Your task to perform on an android device: open app "Expedia: Hotels, Flights & Car" (install if not already installed) and go to login screen Image 0: 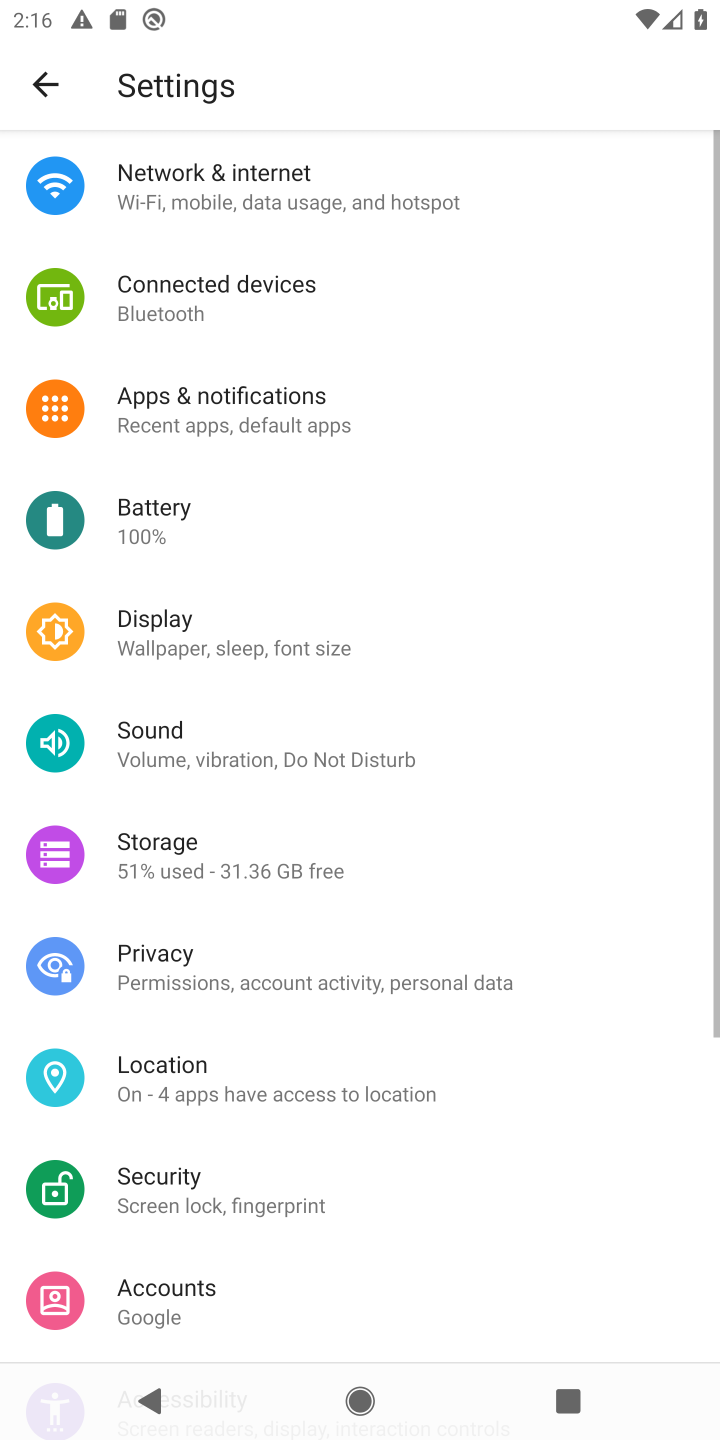
Step 0: press home button
Your task to perform on an android device: open app "Expedia: Hotels, Flights & Car" (install if not already installed) and go to login screen Image 1: 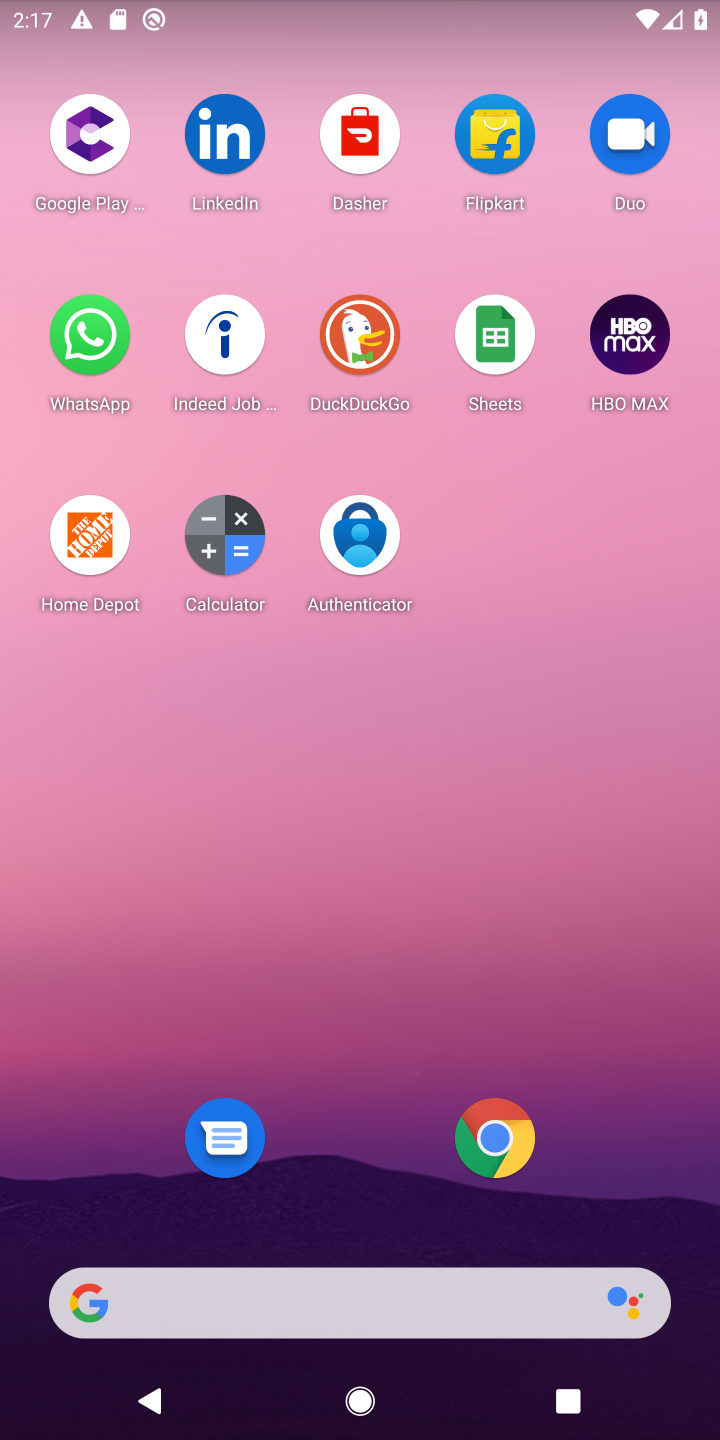
Step 1: drag from (356, 1090) to (357, 201)
Your task to perform on an android device: open app "Expedia: Hotels, Flights & Car" (install if not already installed) and go to login screen Image 2: 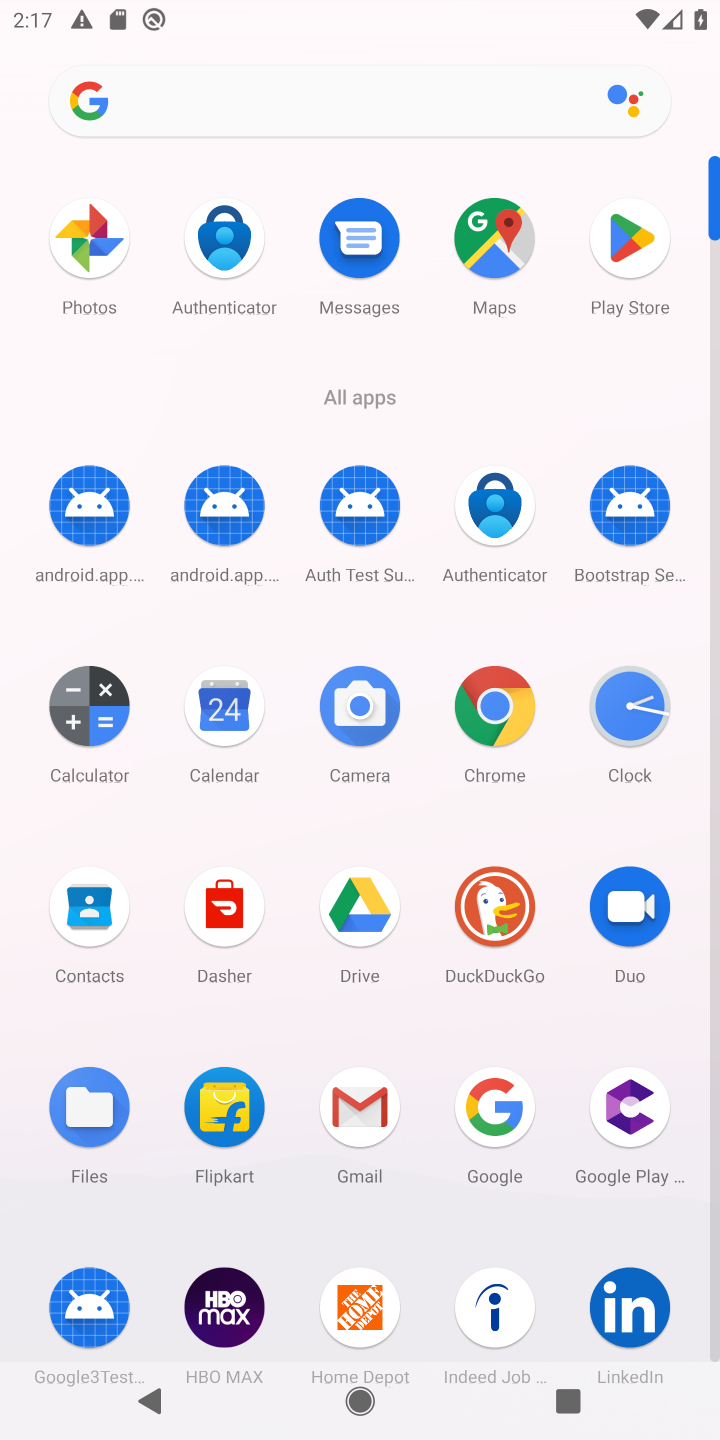
Step 2: click (632, 231)
Your task to perform on an android device: open app "Expedia: Hotels, Flights & Car" (install if not already installed) and go to login screen Image 3: 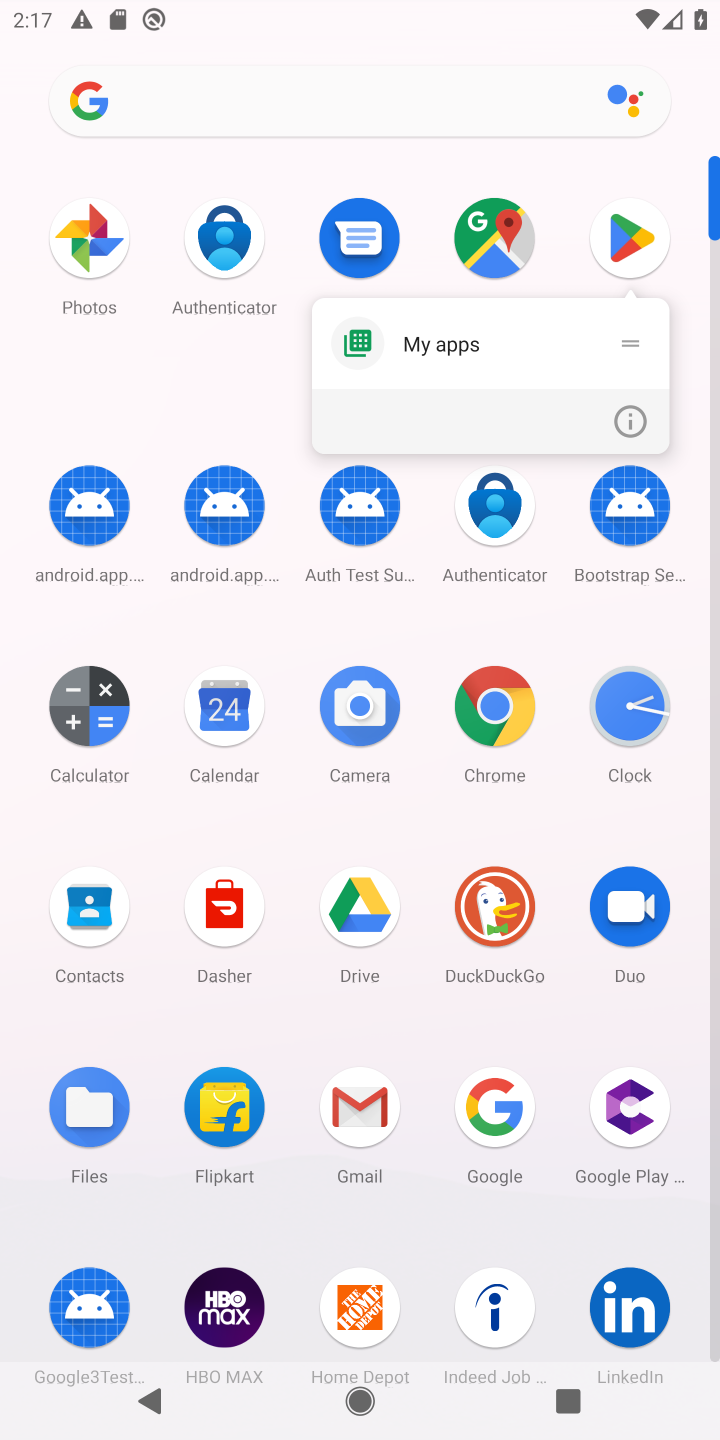
Step 3: click (629, 231)
Your task to perform on an android device: open app "Expedia: Hotels, Flights & Car" (install if not already installed) and go to login screen Image 4: 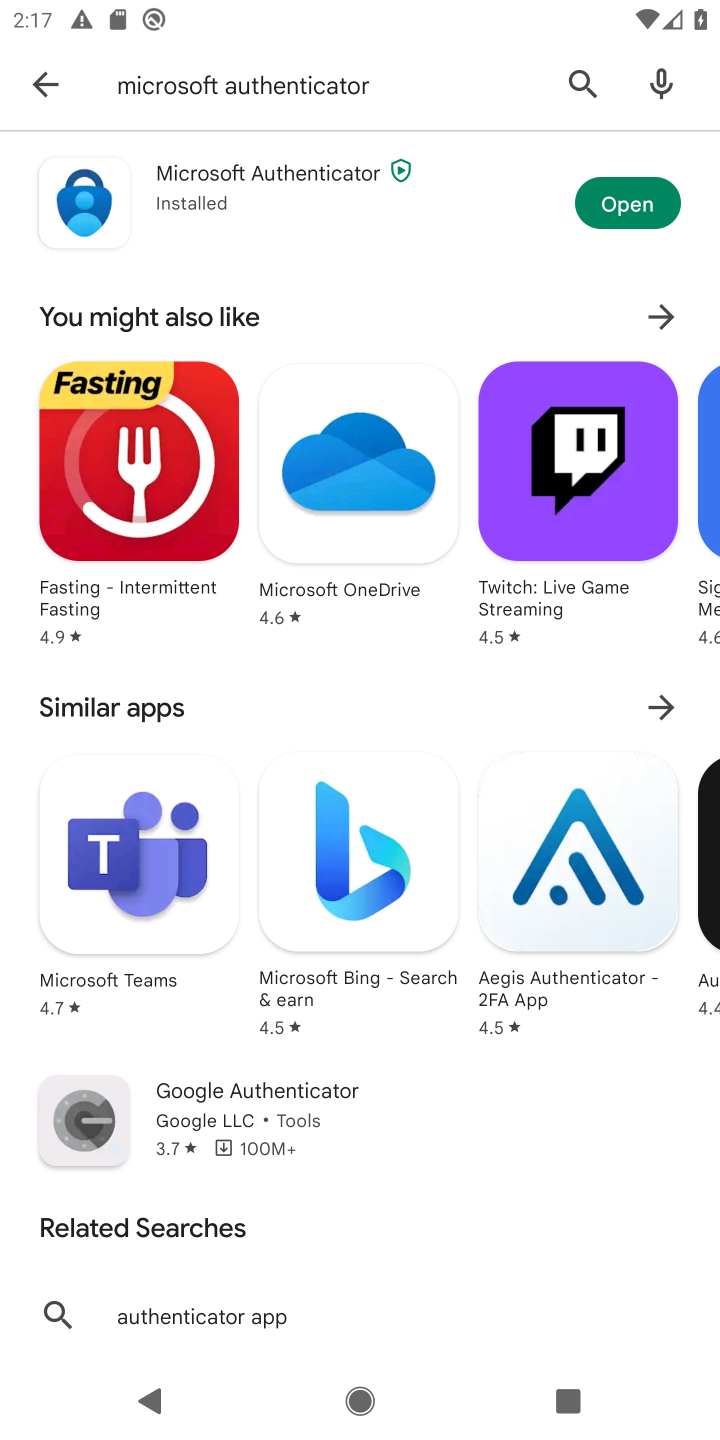
Step 4: click (582, 77)
Your task to perform on an android device: open app "Expedia: Hotels, Flights & Car" (install if not already installed) and go to login screen Image 5: 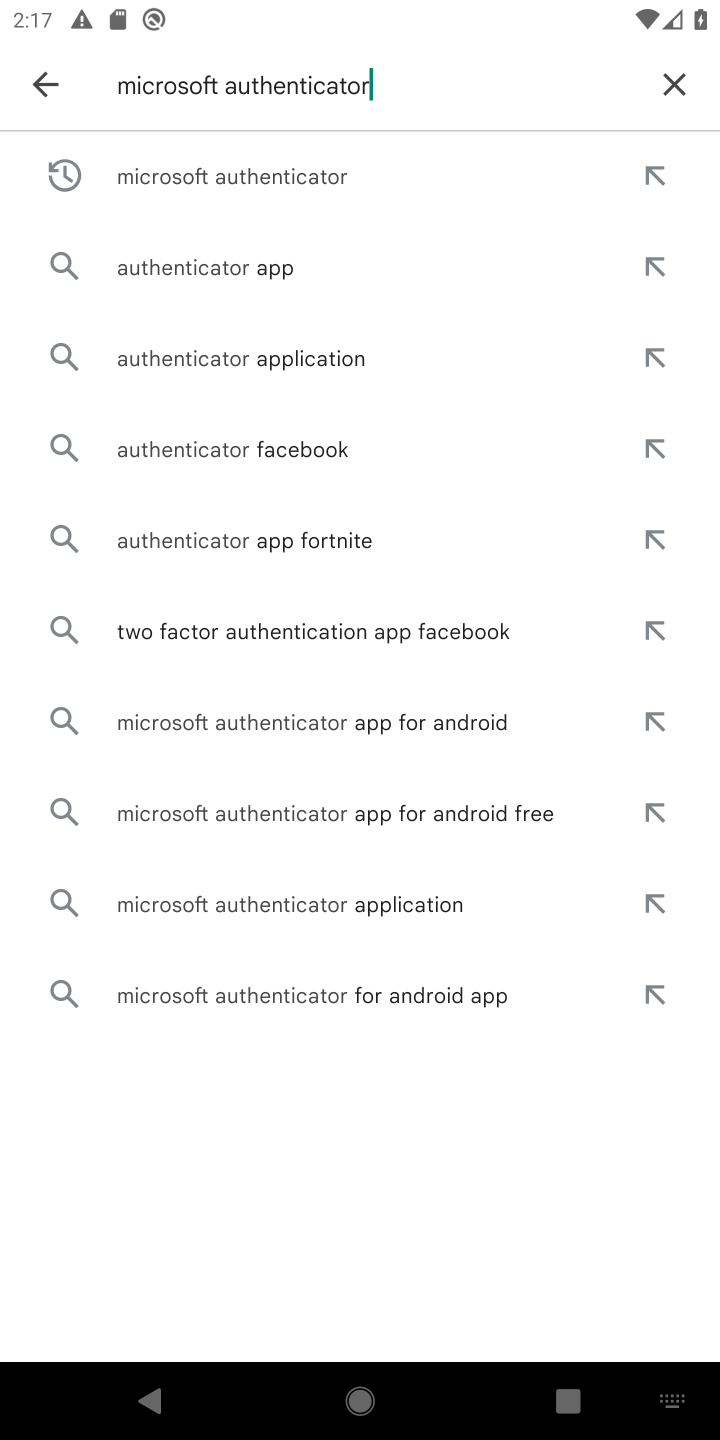
Step 5: click (669, 77)
Your task to perform on an android device: open app "Expedia: Hotels, Flights & Car" (install if not already installed) and go to login screen Image 6: 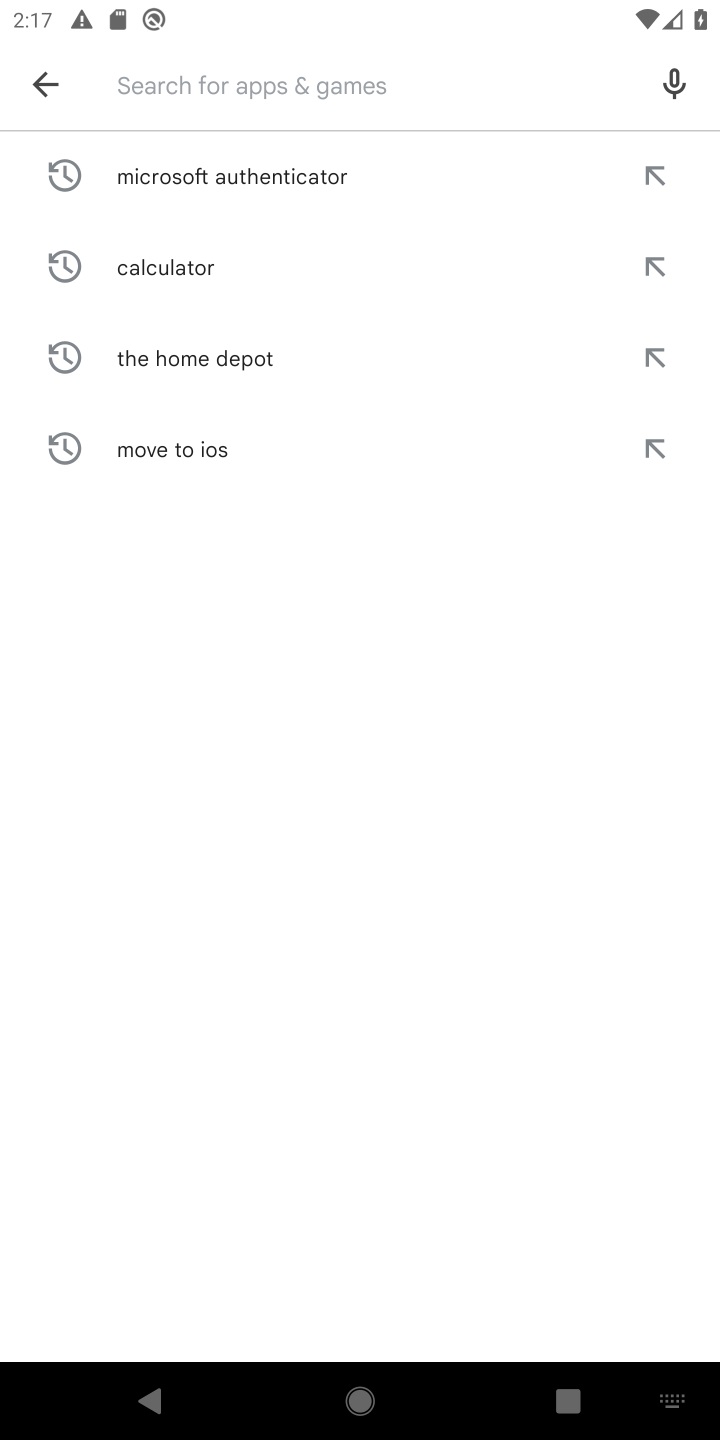
Step 6: type "Expedia: Hotels, Flights & Car"
Your task to perform on an android device: open app "Expedia: Hotels, Flights & Car" (install if not already installed) and go to login screen Image 7: 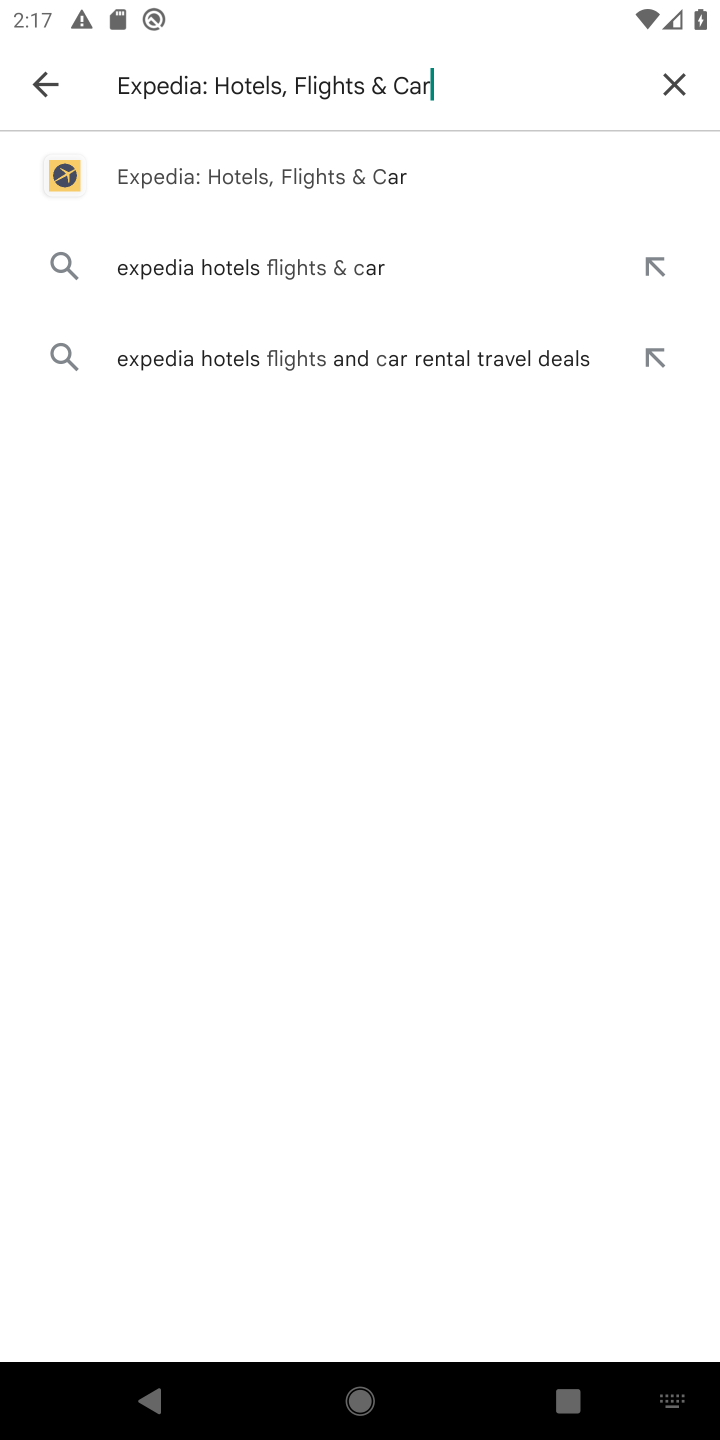
Step 7: type ""
Your task to perform on an android device: open app "Expedia: Hotels, Flights & Car" (install if not already installed) and go to login screen Image 8: 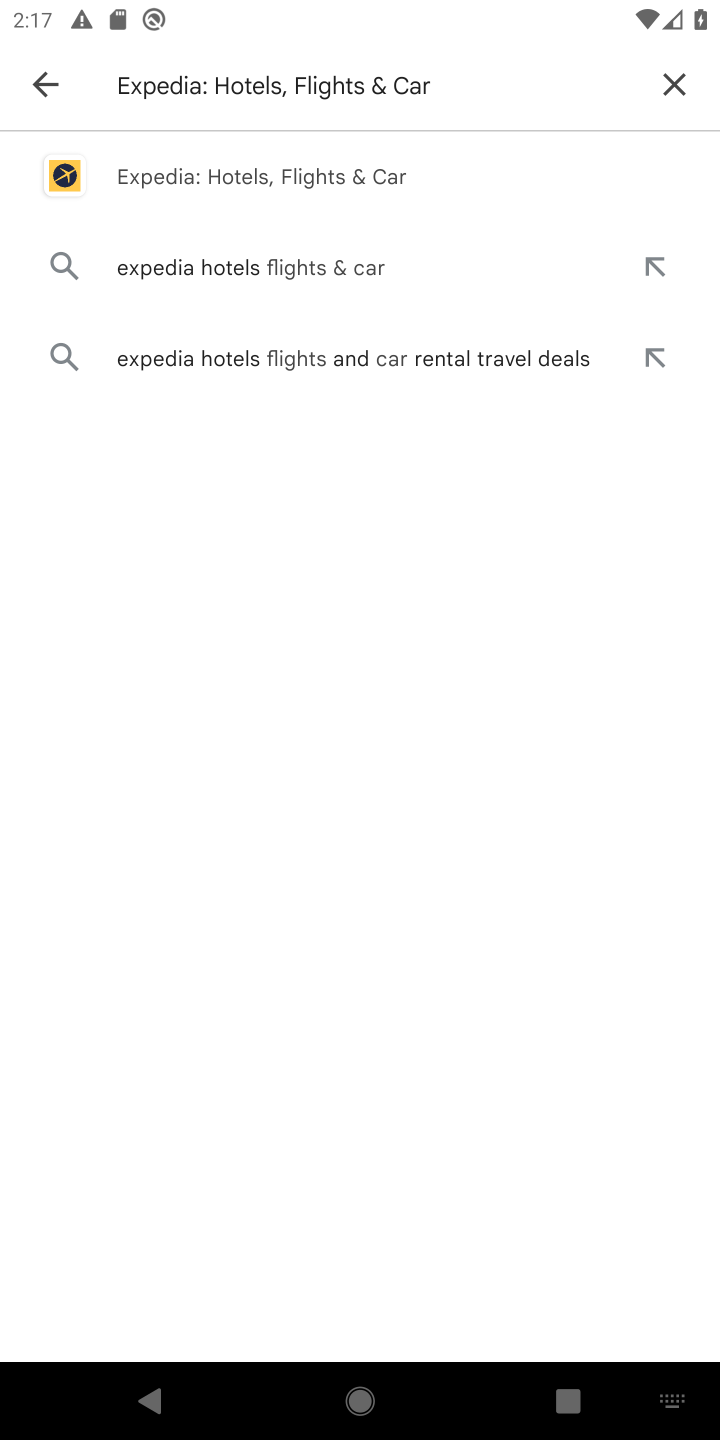
Step 8: click (313, 182)
Your task to perform on an android device: open app "Expedia: Hotels, Flights & Car" (install if not already installed) and go to login screen Image 9: 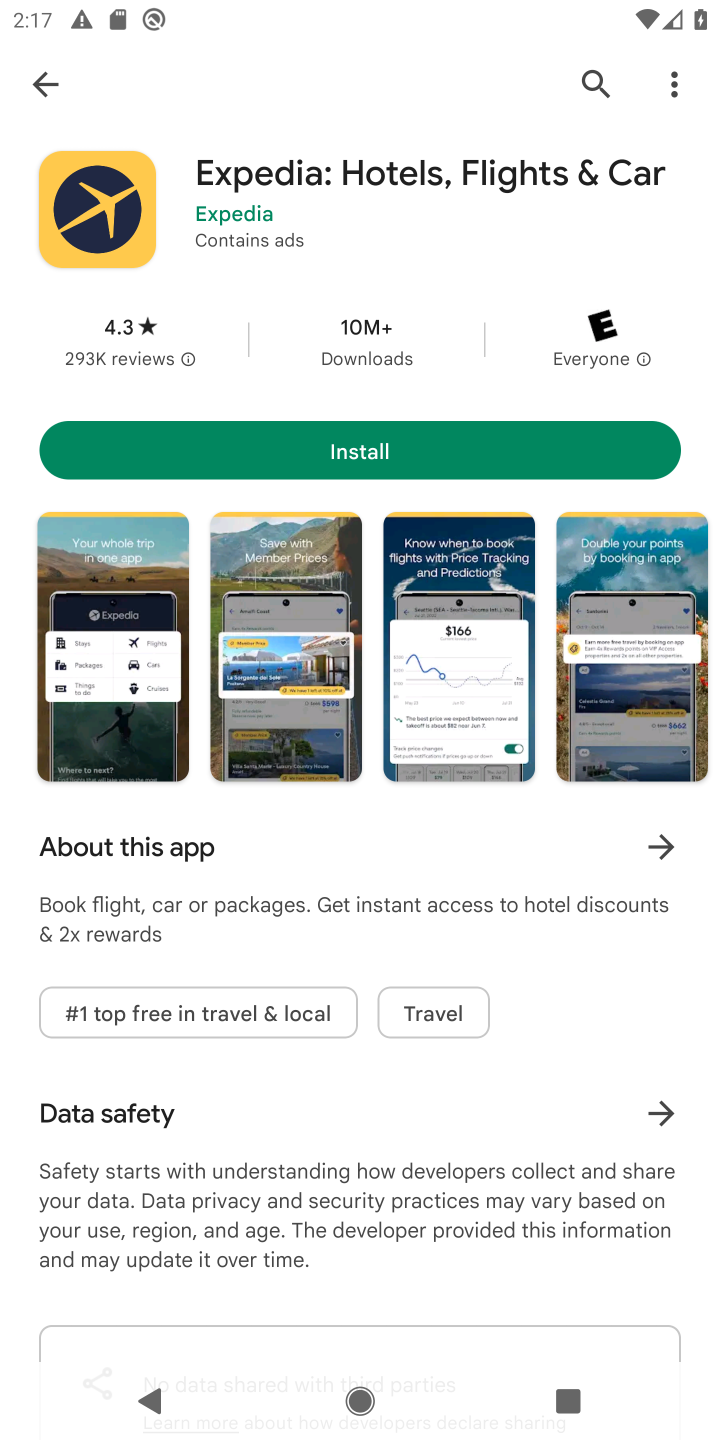
Step 9: click (390, 450)
Your task to perform on an android device: open app "Expedia: Hotels, Flights & Car" (install if not already installed) and go to login screen Image 10: 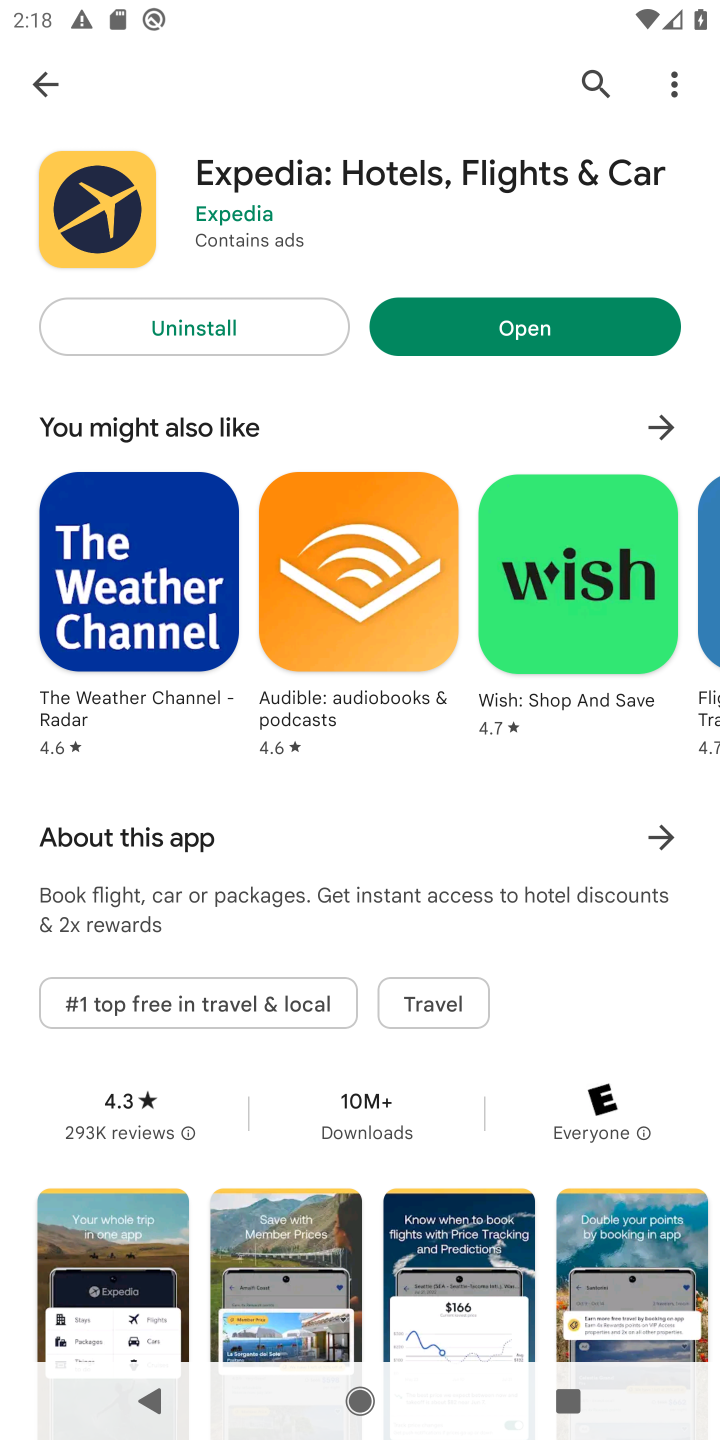
Step 10: click (559, 327)
Your task to perform on an android device: open app "Expedia: Hotels, Flights & Car" (install if not already installed) and go to login screen Image 11: 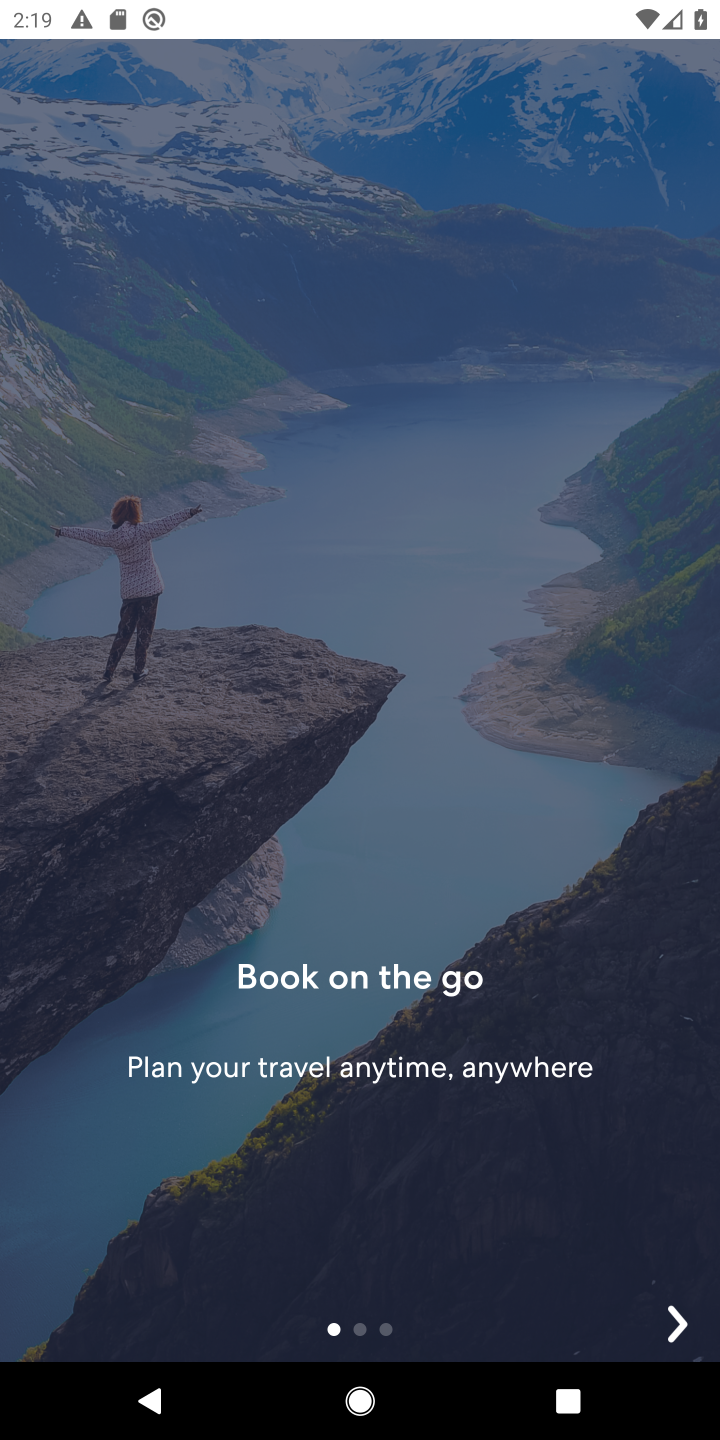
Step 11: click (670, 1326)
Your task to perform on an android device: open app "Expedia: Hotels, Flights & Car" (install if not already installed) and go to login screen Image 12: 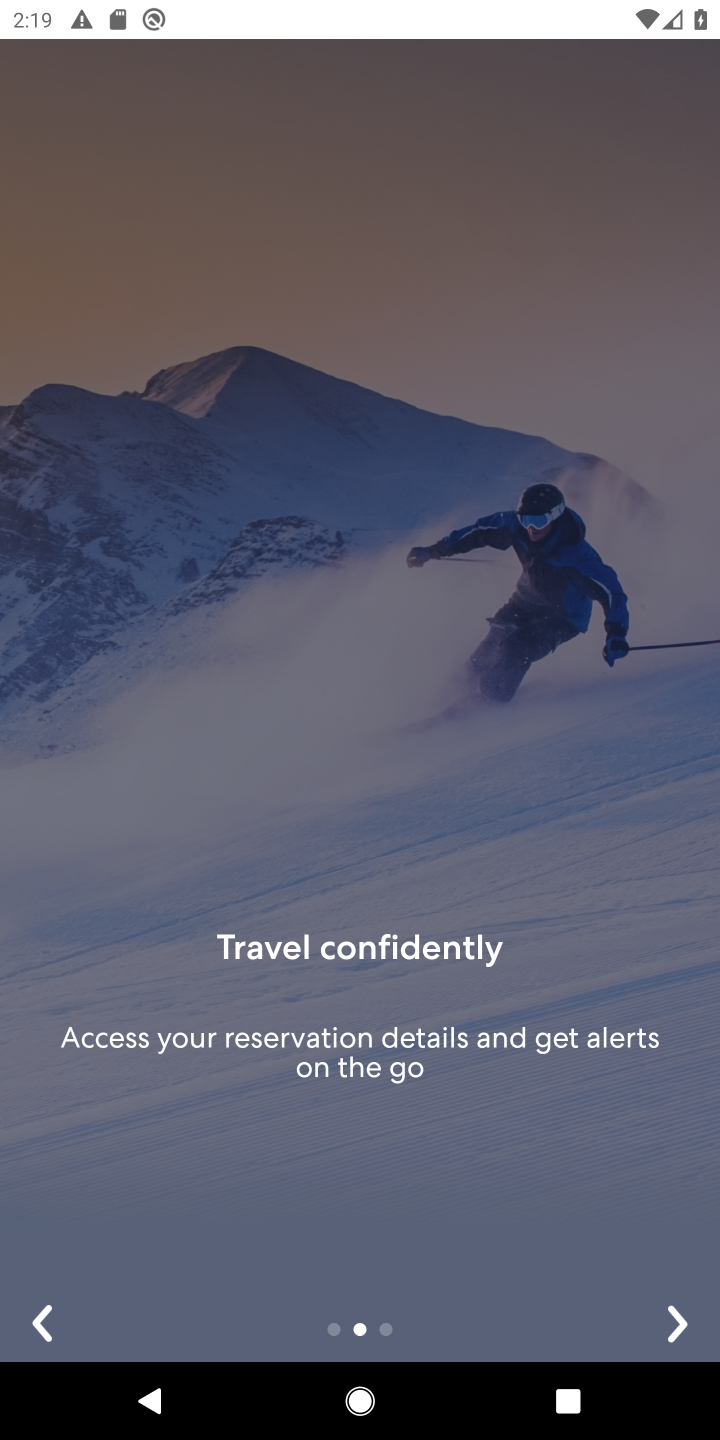
Step 12: click (675, 1318)
Your task to perform on an android device: open app "Expedia: Hotels, Flights & Car" (install if not already installed) and go to login screen Image 13: 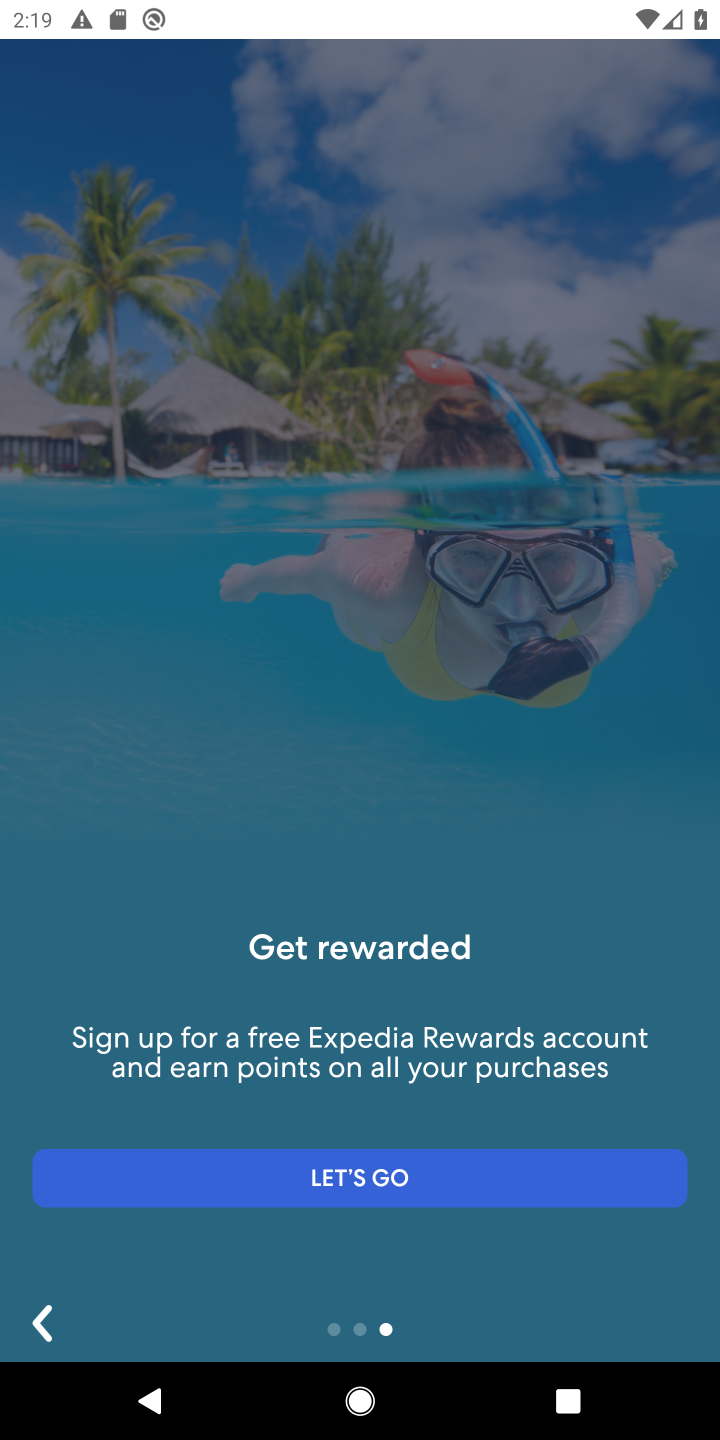
Step 13: click (371, 1180)
Your task to perform on an android device: open app "Expedia: Hotels, Flights & Car" (install if not already installed) and go to login screen Image 14: 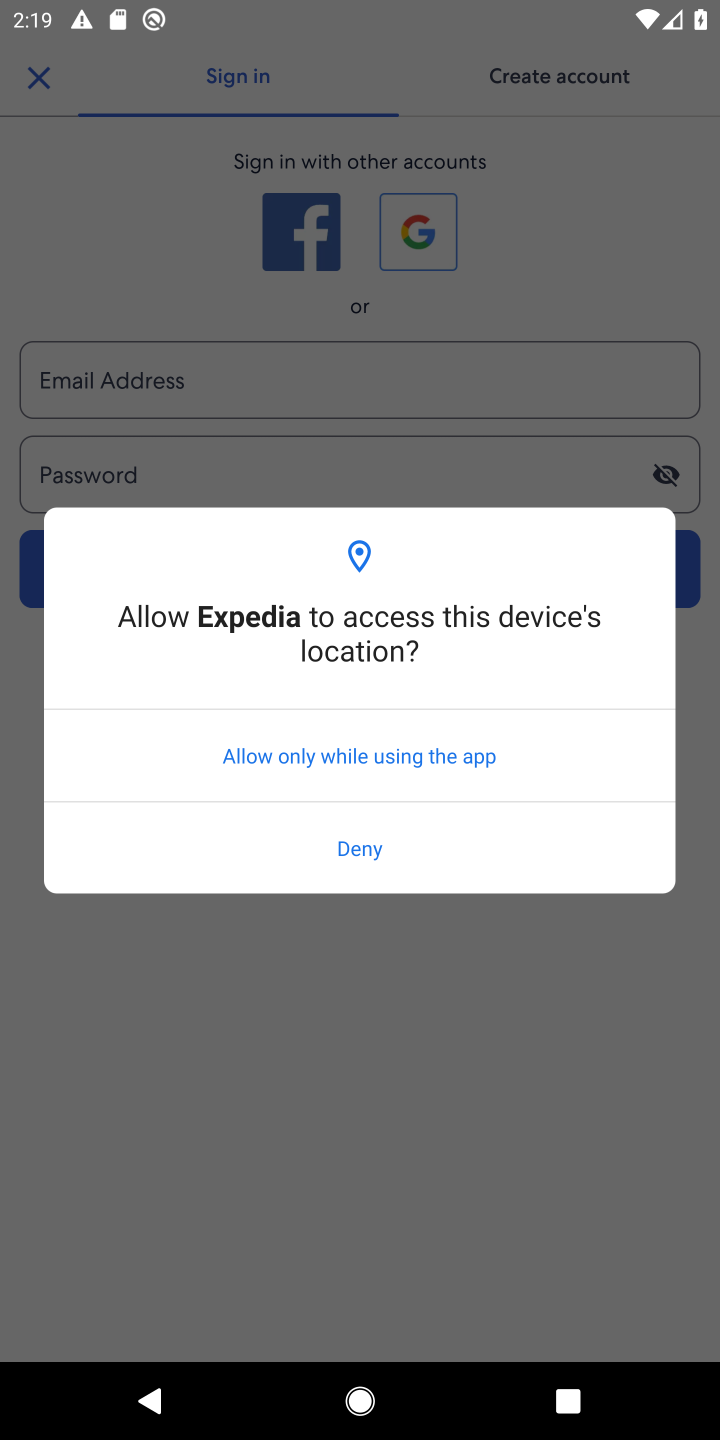
Step 14: click (364, 842)
Your task to perform on an android device: open app "Expedia: Hotels, Flights & Car" (install if not already installed) and go to login screen Image 15: 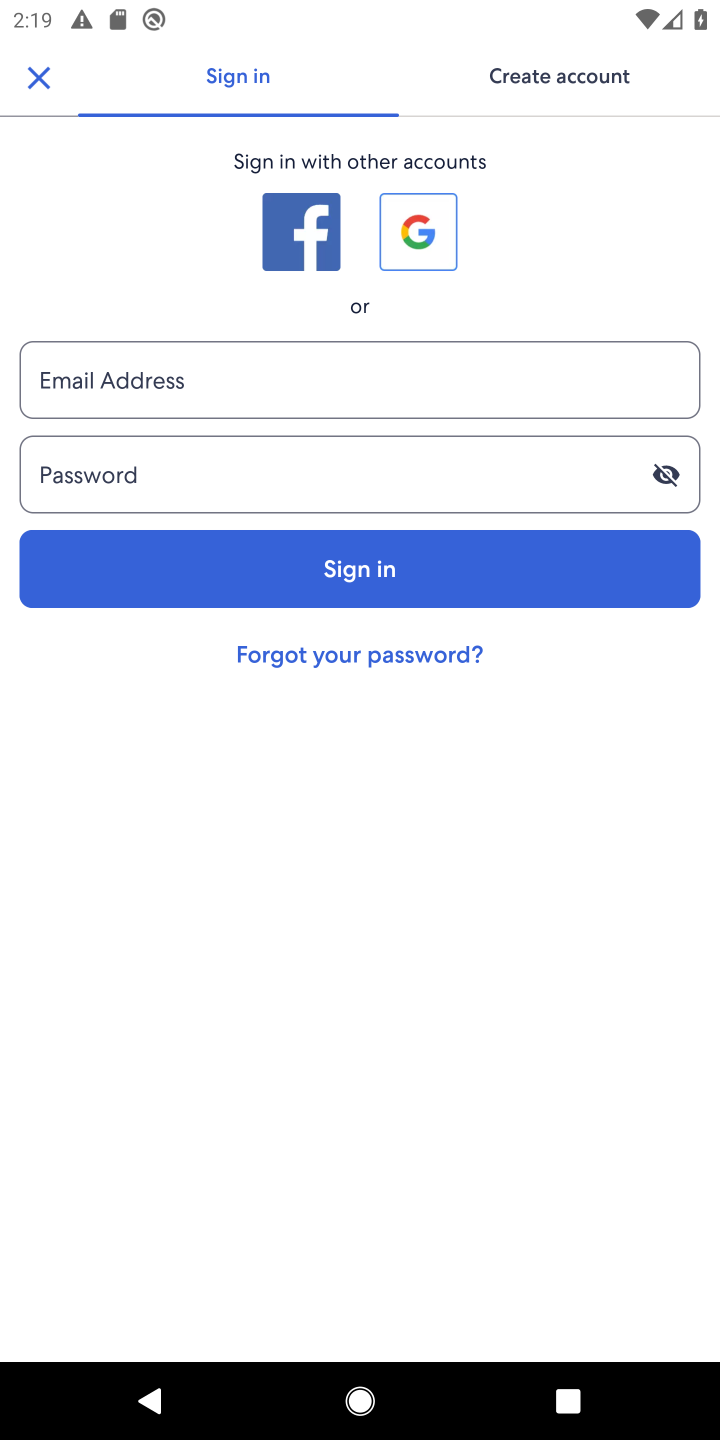
Step 15: task complete